Your task to perform on an android device: turn on bluetooth scan Image 0: 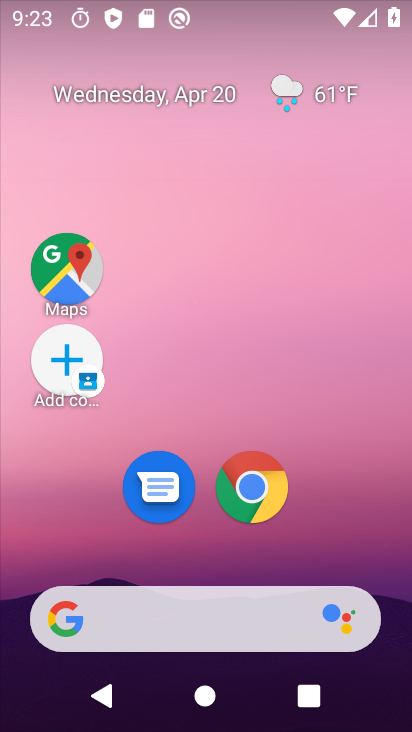
Step 0: drag from (355, 512) to (333, 131)
Your task to perform on an android device: turn on bluetooth scan Image 1: 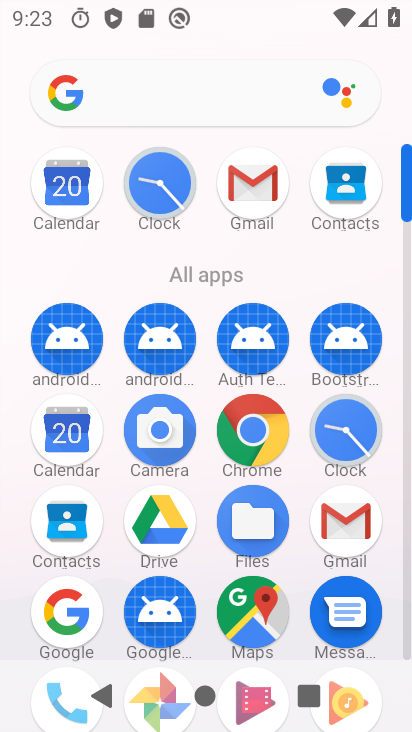
Step 1: drag from (111, 552) to (115, 359)
Your task to perform on an android device: turn on bluetooth scan Image 2: 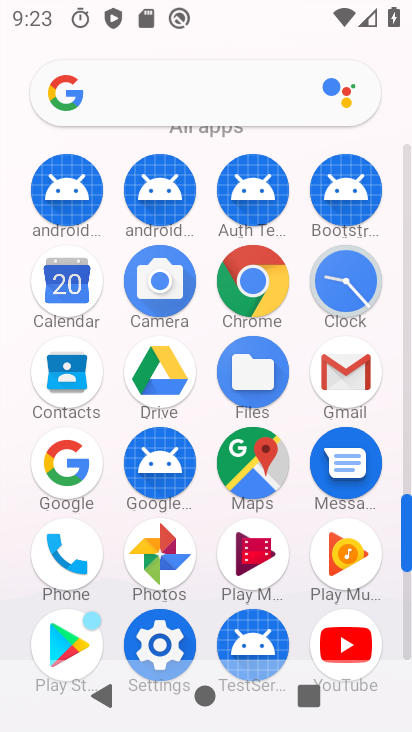
Step 2: click (149, 631)
Your task to perform on an android device: turn on bluetooth scan Image 3: 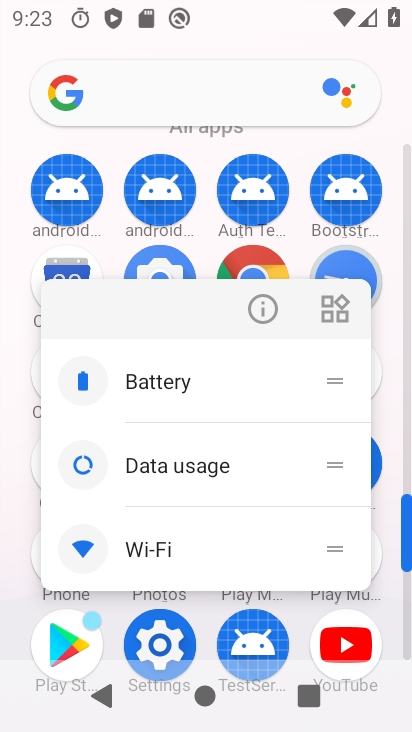
Step 3: click (150, 630)
Your task to perform on an android device: turn on bluetooth scan Image 4: 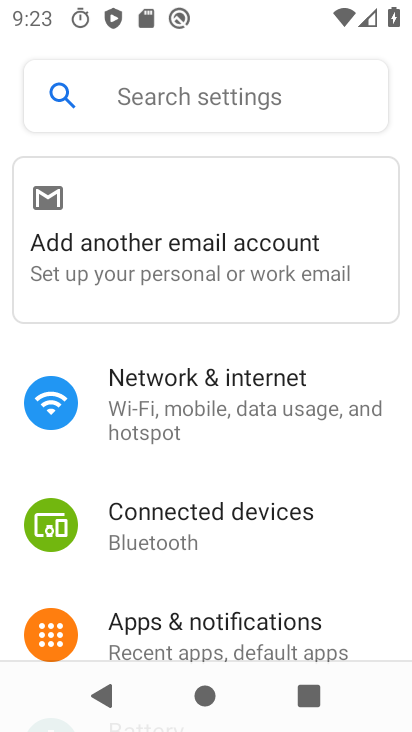
Step 4: drag from (148, 627) to (146, 573)
Your task to perform on an android device: turn on bluetooth scan Image 5: 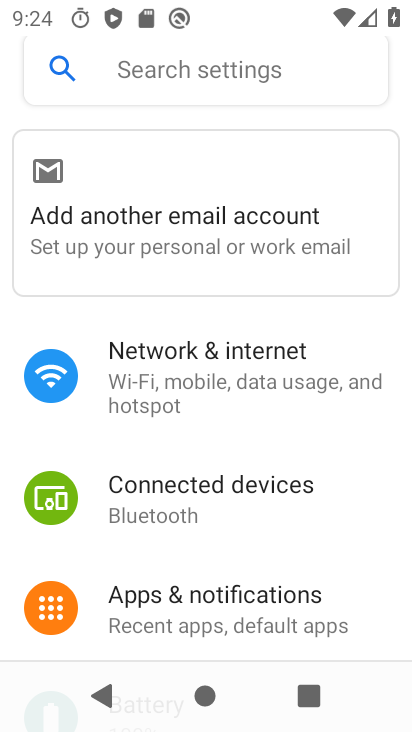
Step 5: drag from (139, 599) to (130, 540)
Your task to perform on an android device: turn on bluetooth scan Image 6: 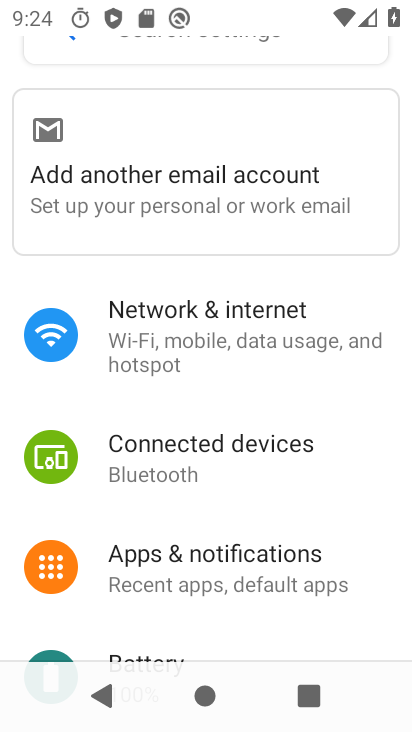
Step 6: drag from (132, 611) to (134, 532)
Your task to perform on an android device: turn on bluetooth scan Image 7: 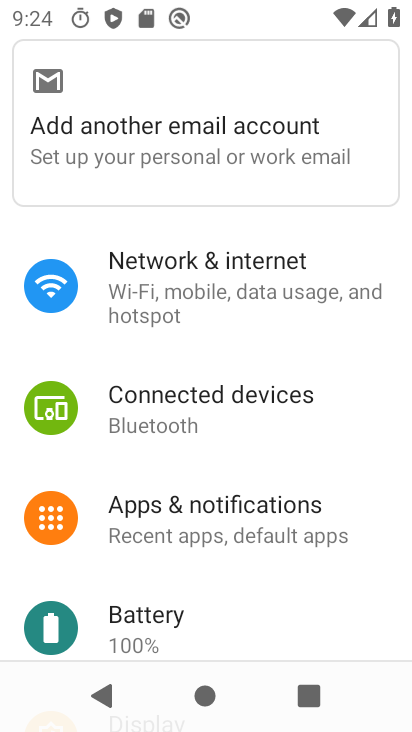
Step 7: drag from (155, 624) to (144, 537)
Your task to perform on an android device: turn on bluetooth scan Image 8: 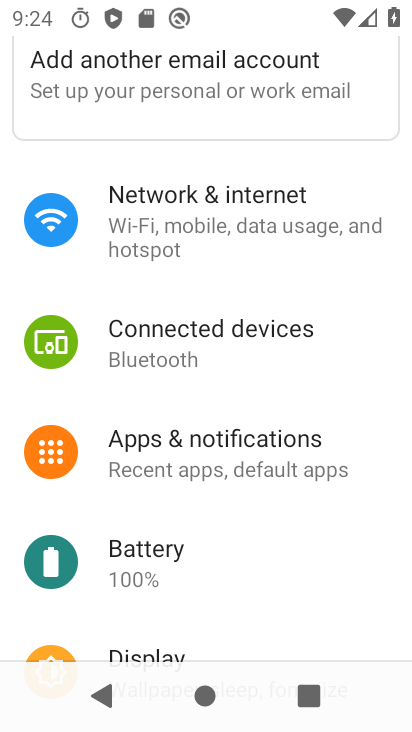
Step 8: drag from (131, 597) to (129, 517)
Your task to perform on an android device: turn on bluetooth scan Image 9: 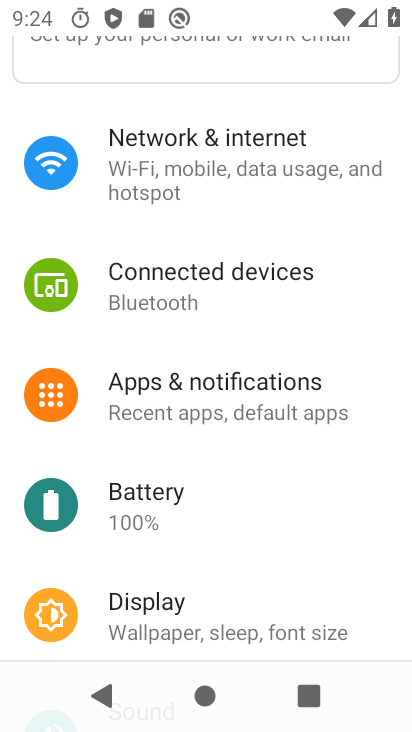
Step 9: drag from (116, 587) to (105, 533)
Your task to perform on an android device: turn on bluetooth scan Image 10: 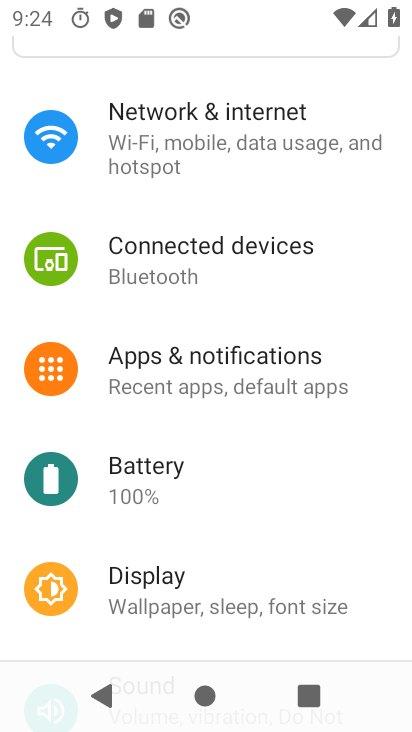
Step 10: drag from (116, 568) to (113, 506)
Your task to perform on an android device: turn on bluetooth scan Image 11: 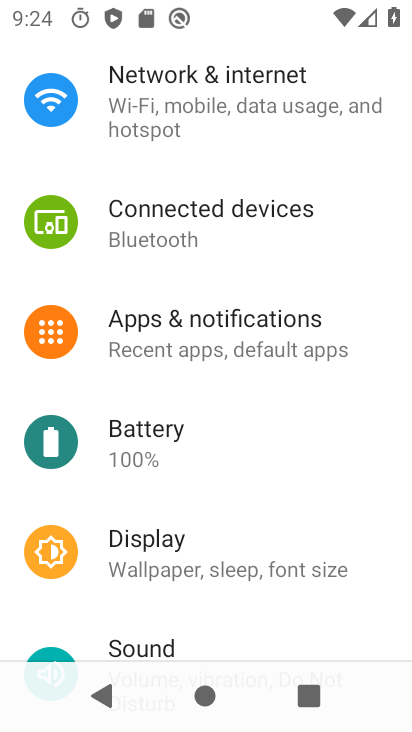
Step 11: drag from (128, 554) to (132, 471)
Your task to perform on an android device: turn on bluetooth scan Image 12: 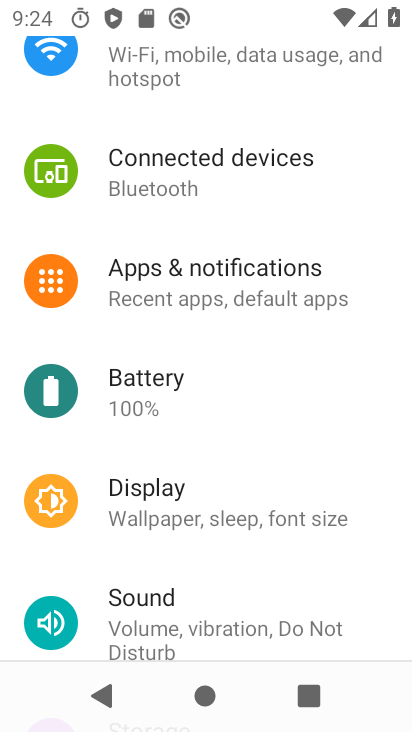
Step 12: drag from (128, 554) to (127, 484)
Your task to perform on an android device: turn on bluetooth scan Image 13: 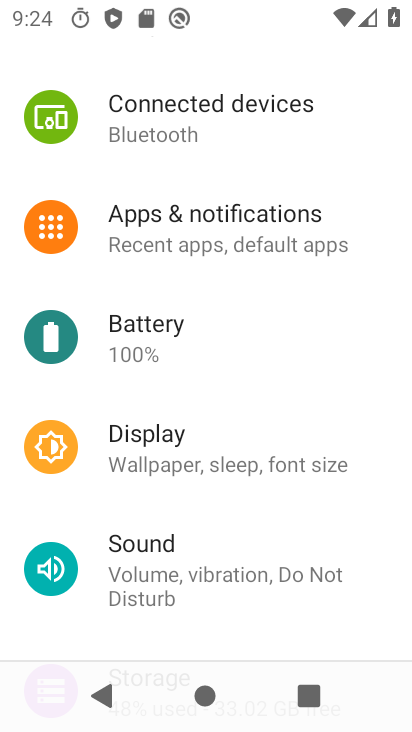
Step 13: drag from (139, 549) to (138, 493)
Your task to perform on an android device: turn on bluetooth scan Image 14: 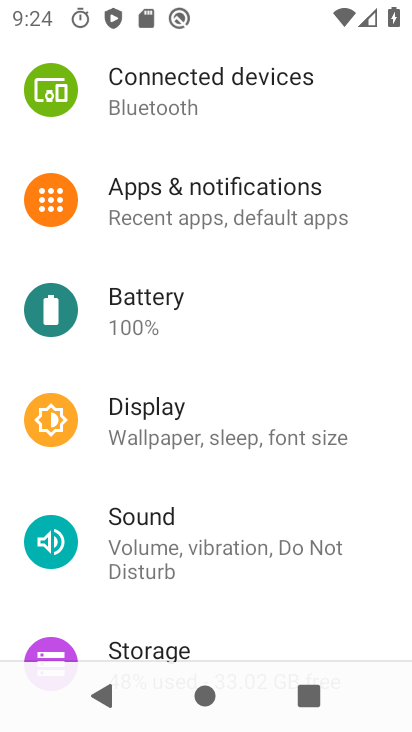
Step 14: drag from (149, 542) to (146, 476)
Your task to perform on an android device: turn on bluetooth scan Image 15: 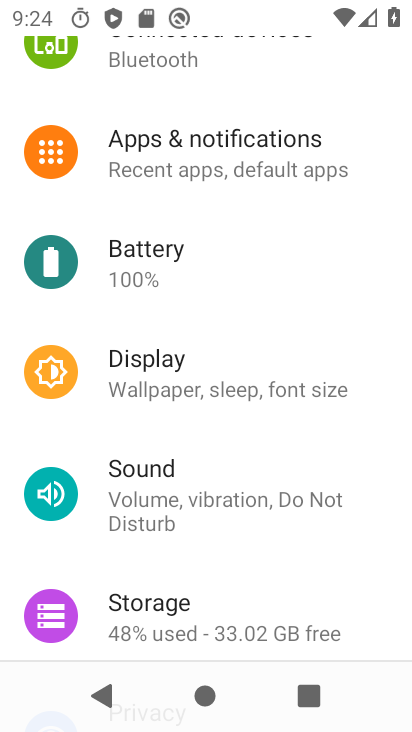
Step 15: drag from (141, 535) to (138, 480)
Your task to perform on an android device: turn on bluetooth scan Image 16: 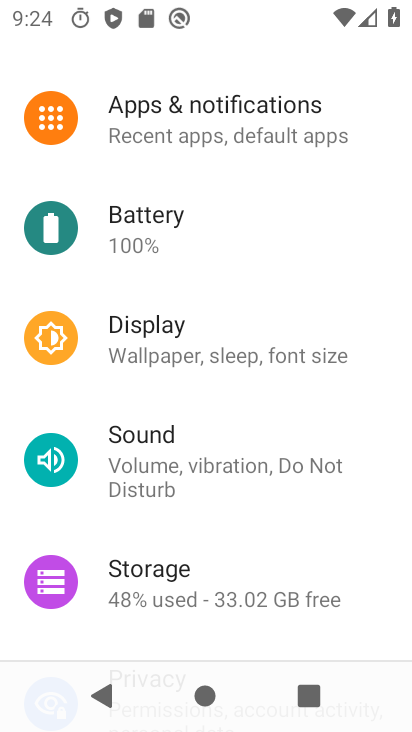
Step 16: drag from (137, 522) to (136, 464)
Your task to perform on an android device: turn on bluetooth scan Image 17: 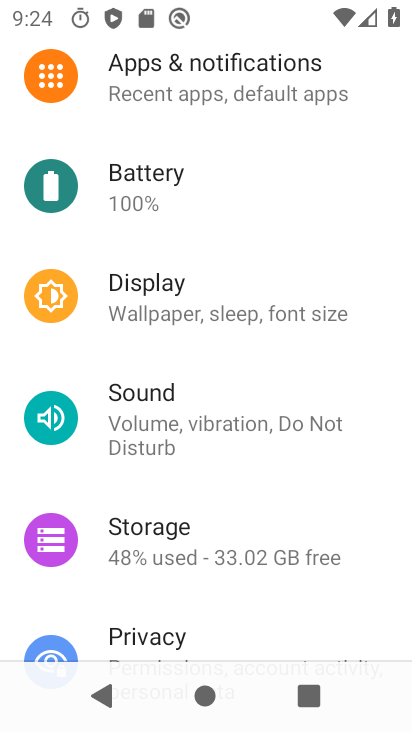
Step 17: drag from (148, 512) to (144, 458)
Your task to perform on an android device: turn on bluetooth scan Image 18: 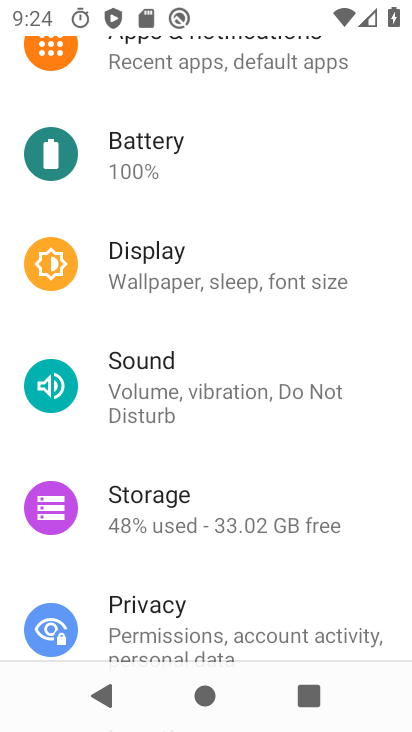
Step 18: drag from (151, 527) to (145, 434)
Your task to perform on an android device: turn on bluetooth scan Image 19: 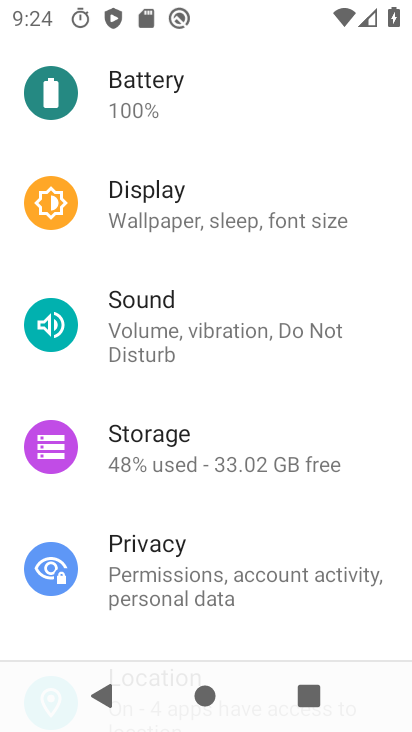
Step 19: drag from (147, 476) to (142, 429)
Your task to perform on an android device: turn on bluetooth scan Image 20: 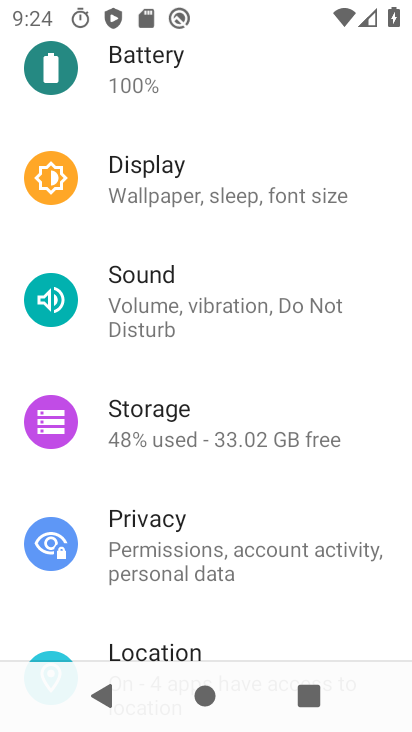
Step 20: drag from (158, 486) to (155, 403)
Your task to perform on an android device: turn on bluetooth scan Image 21: 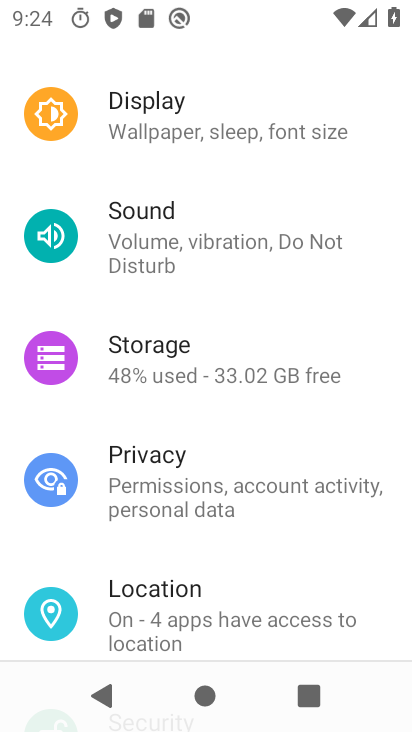
Step 21: click (132, 604)
Your task to perform on an android device: turn on bluetooth scan Image 22: 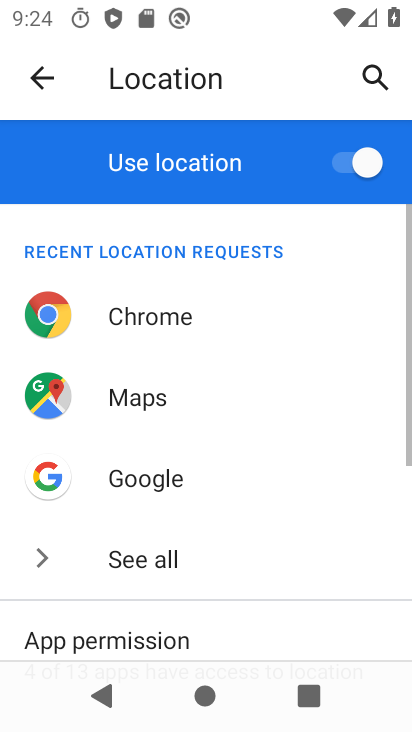
Step 22: drag from (121, 614) to (115, 499)
Your task to perform on an android device: turn on bluetooth scan Image 23: 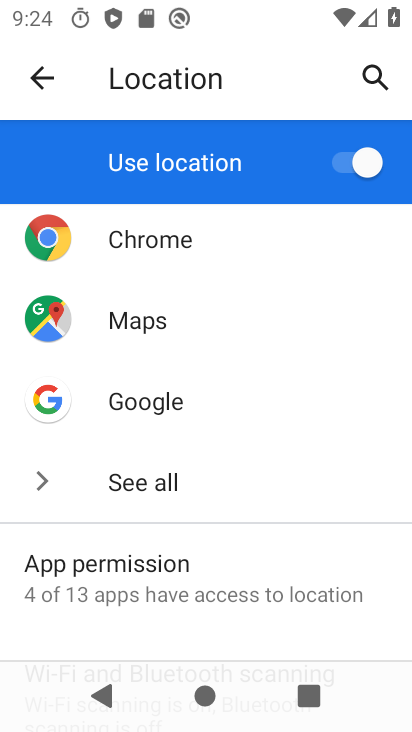
Step 23: drag from (107, 582) to (95, 492)
Your task to perform on an android device: turn on bluetooth scan Image 24: 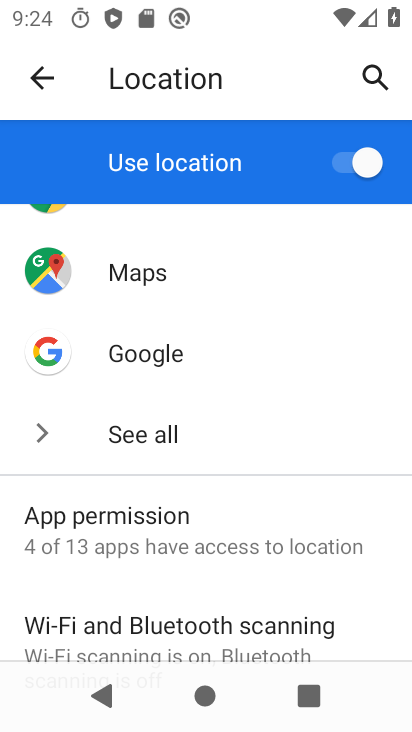
Step 24: drag from (101, 540) to (101, 490)
Your task to perform on an android device: turn on bluetooth scan Image 25: 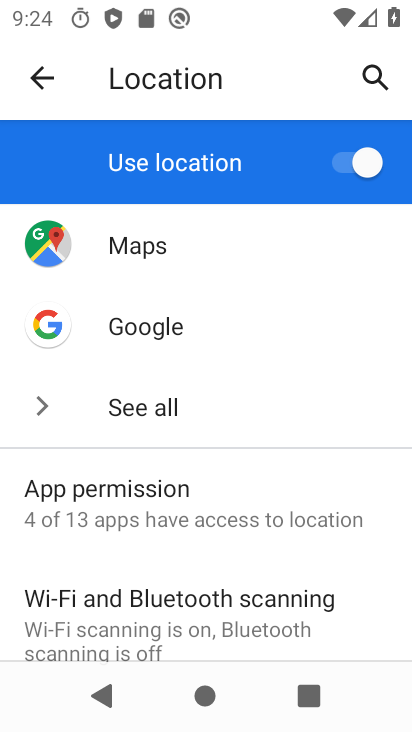
Step 25: click (102, 598)
Your task to perform on an android device: turn on bluetooth scan Image 26: 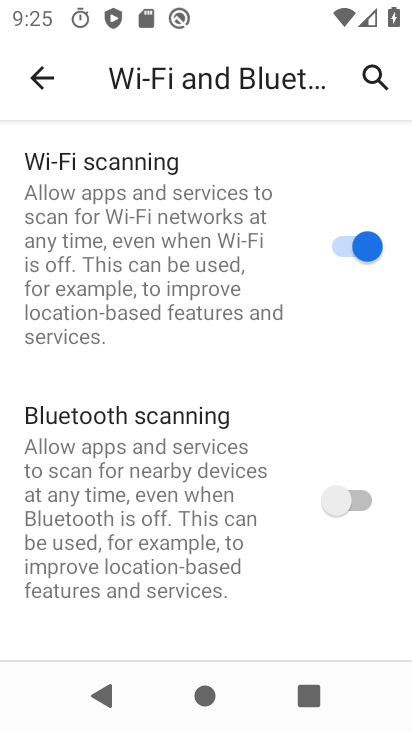
Step 26: click (334, 488)
Your task to perform on an android device: turn on bluetooth scan Image 27: 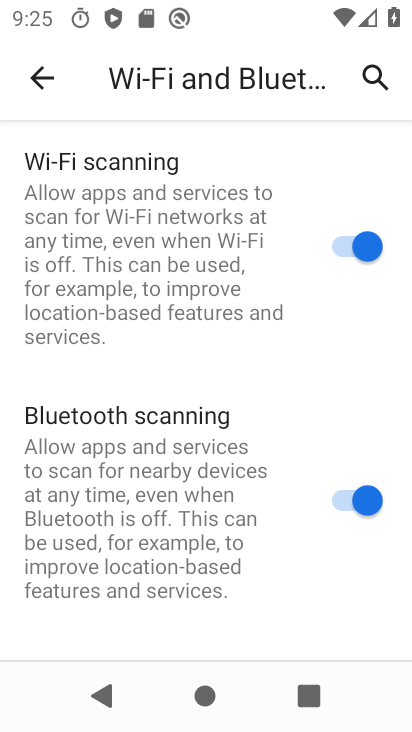
Step 27: task complete